Your task to perform on an android device: Open ESPN.com Image 0: 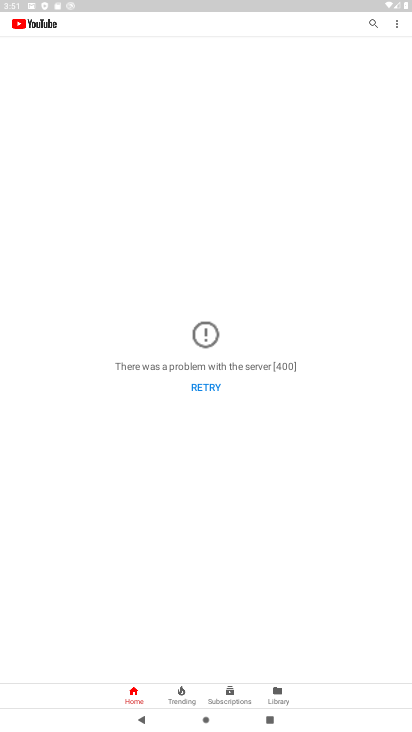
Step 0: press back button
Your task to perform on an android device: Open ESPN.com Image 1: 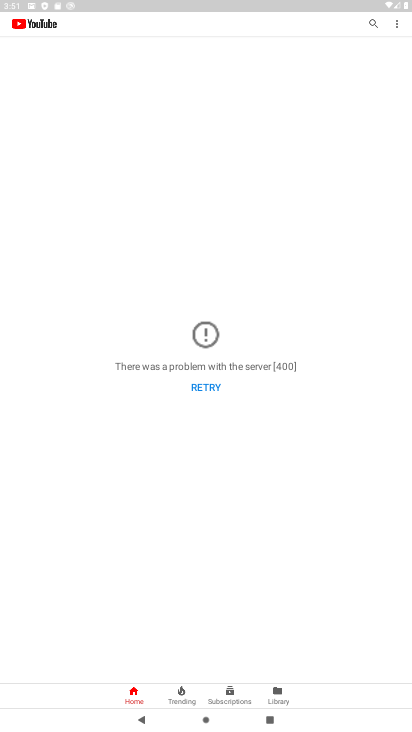
Step 1: press back button
Your task to perform on an android device: Open ESPN.com Image 2: 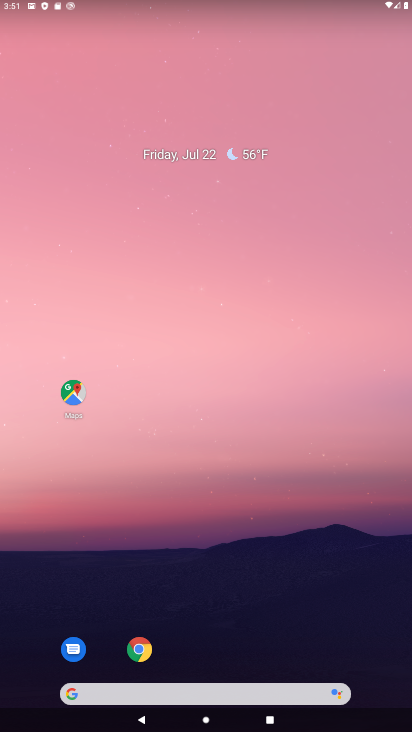
Step 2: drag from (225, 656) to (142, 168)
Your task to perform on an android device: Open ESPN.com Image 3: 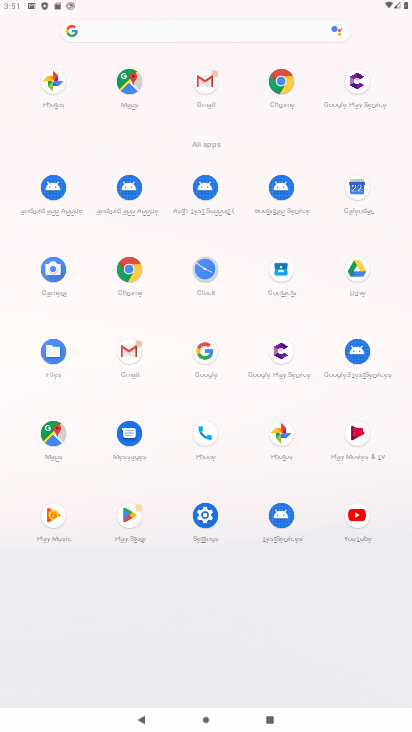
Step 3: click (126, 272)
Your task to perform on an android device: Open ESPN.com Image 4: 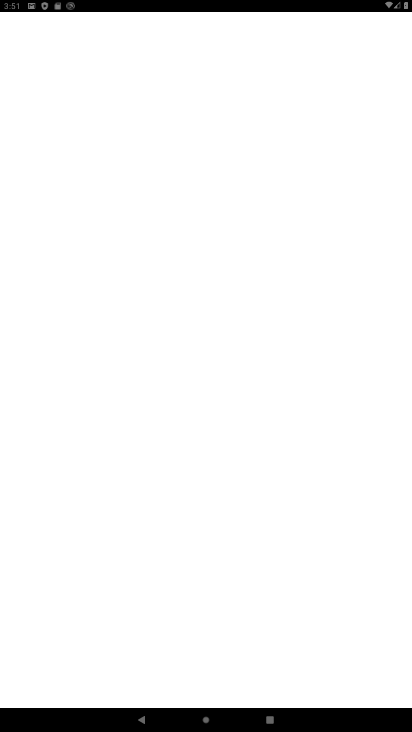
Step 4: click (126, 272)
Your task to perform on an android device: Open ESPN.com Image 5: 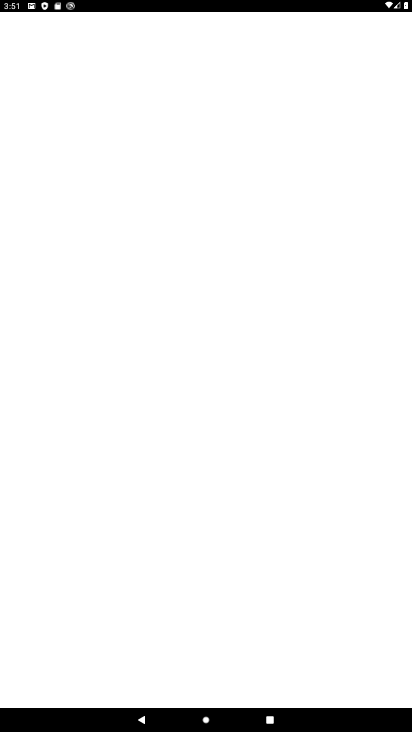
Step 5: click (126, 272)
Your task to perform on an android device: Open ESPN.com Image 6: 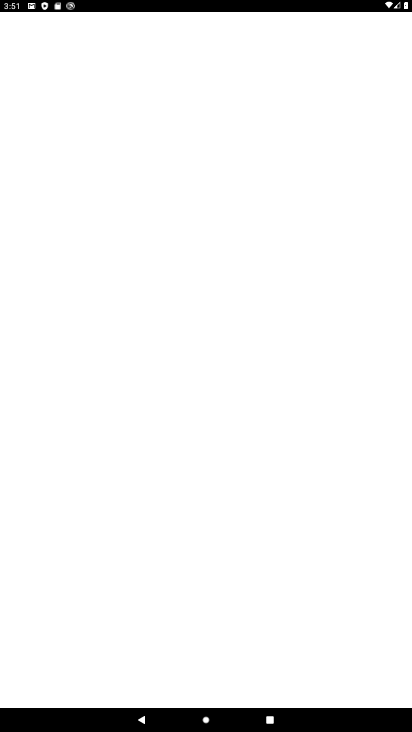
Step 6: click (126, 272)
Your task to perform on an android device: Open ESPN.com Image 7: 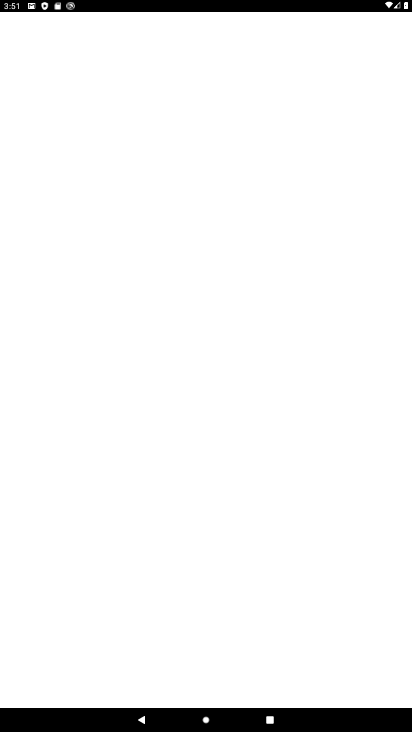
Step 7: click (128, 273)
Your task to perform on an android device: Open ESPN.com Image 8: 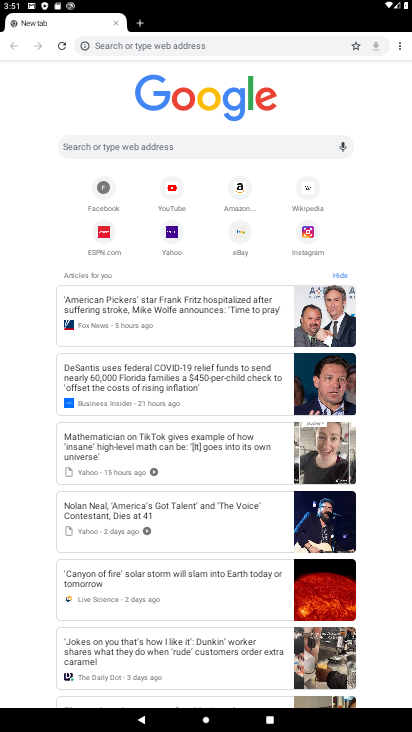
Step 8: click (103, 238)
Your task to perform on an android device: Open ESPN.com Image 9: 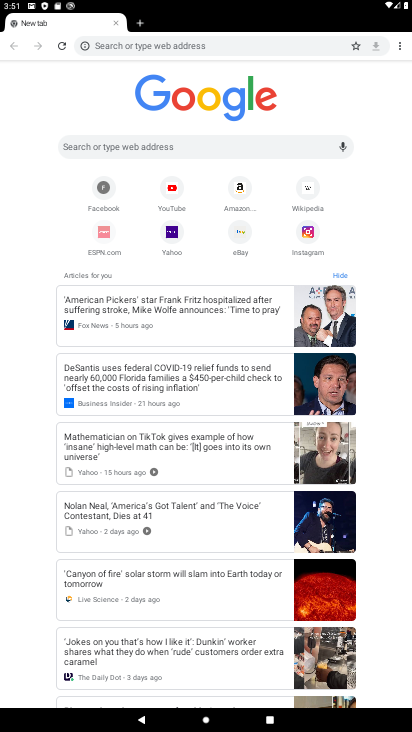
Step 9: click (103, 238)
Your task to perform on an android device: Open ESPN.com Image 10: 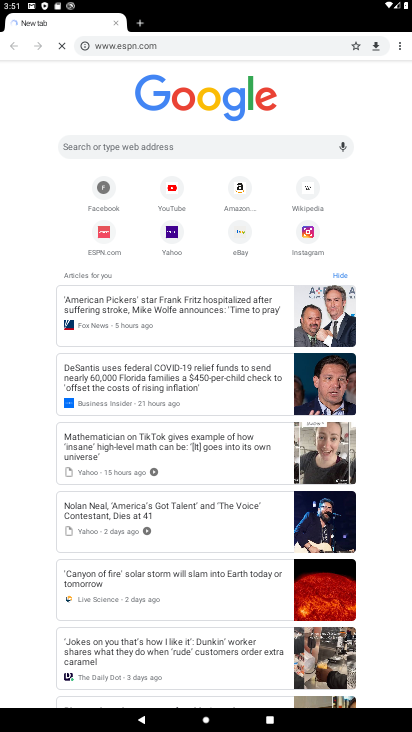
Step 10: click (105, 238)
Your task to perform on an android device: Open ESPN.com Image 11: 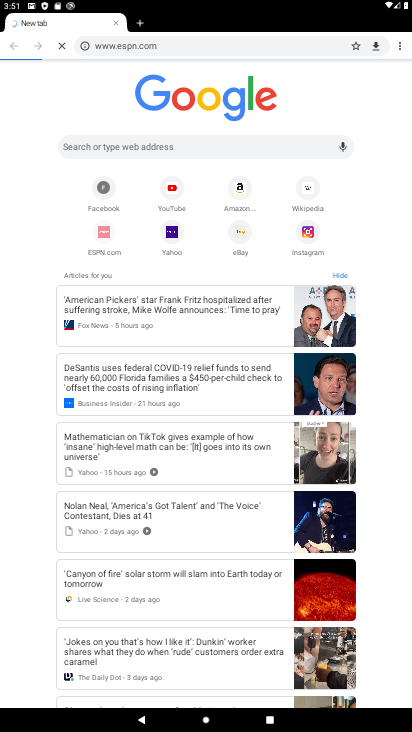
Step 11: click (107, 237)
Your task to perform on an android device: Open ESPN.com Image 12: 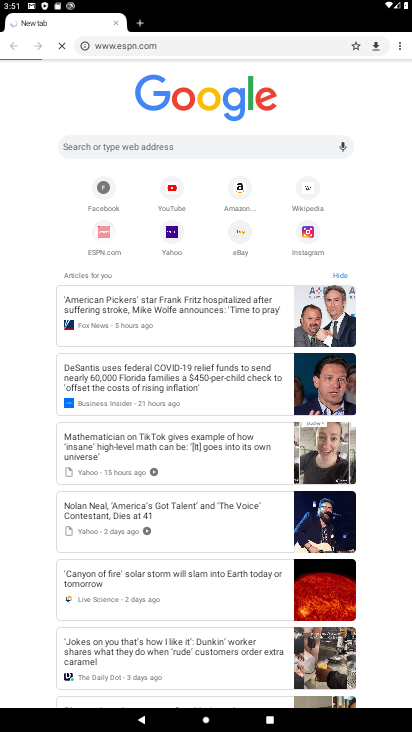
Step 12: click (110, 237)
Your task to perform on an android device: Open ESPN.com Image 13: 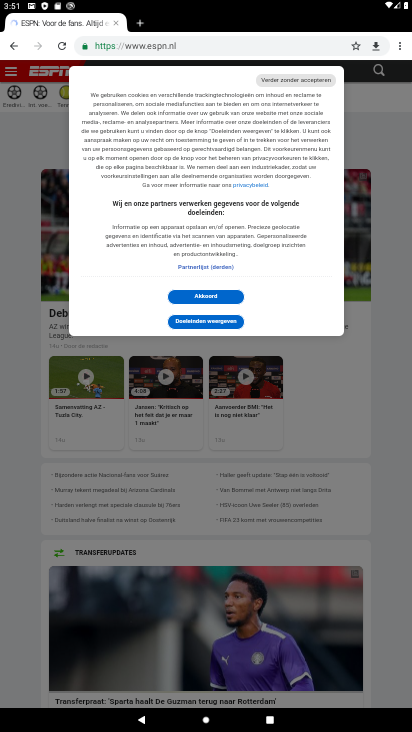
Step 13: task complete